Your task to perform on an android device: Go to eBay Image 0: 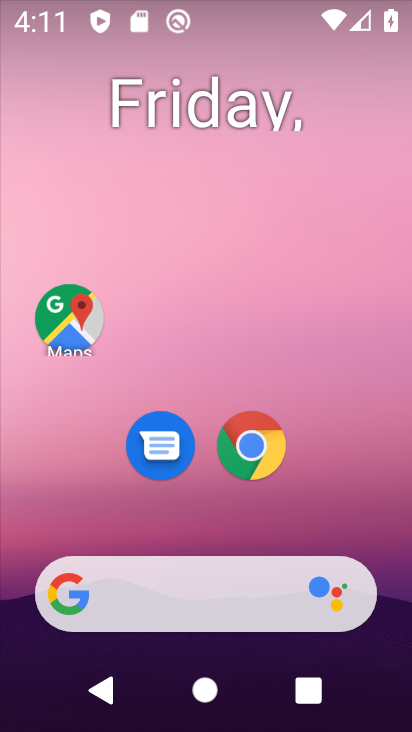
Step 0: click (254, 447)
Your task to perform on an android device: Go to eBay Image 1: 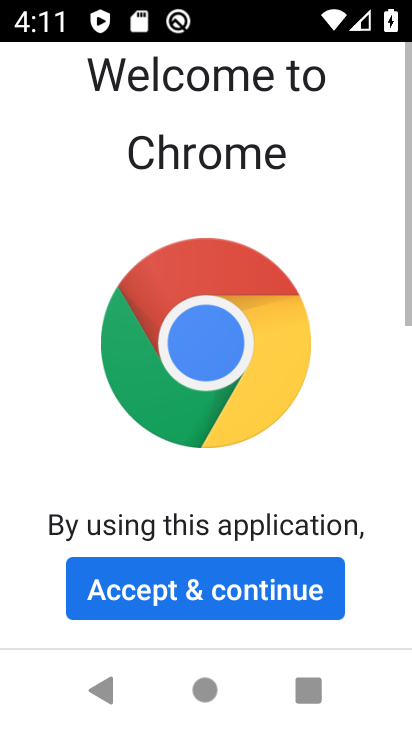
Step 1: click (198, 581)
Your task to perform on an android device: Go to eBay Image 2: 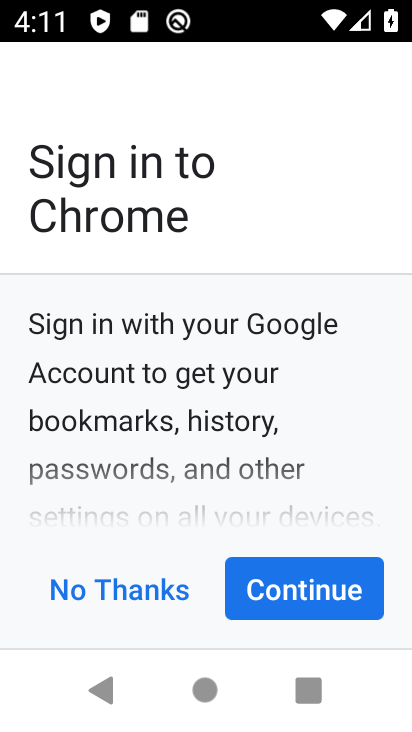
Step 2: click (256, 585)
Your task to perform on an android device: Go to eBay Image 3: 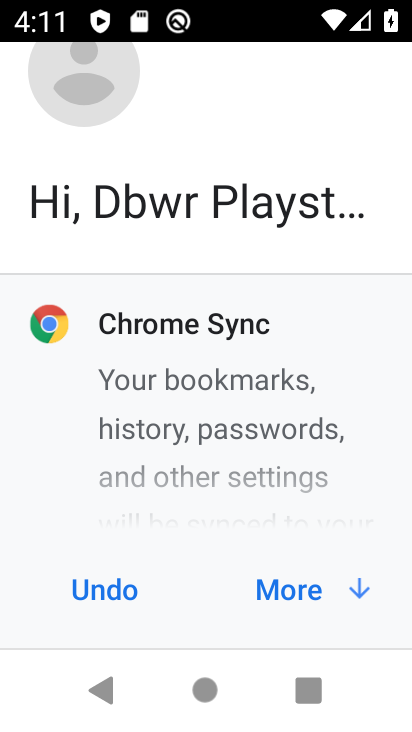
Step 3: click (256, 584)
Your task to perform on an android device: Go to eBay Image 4: 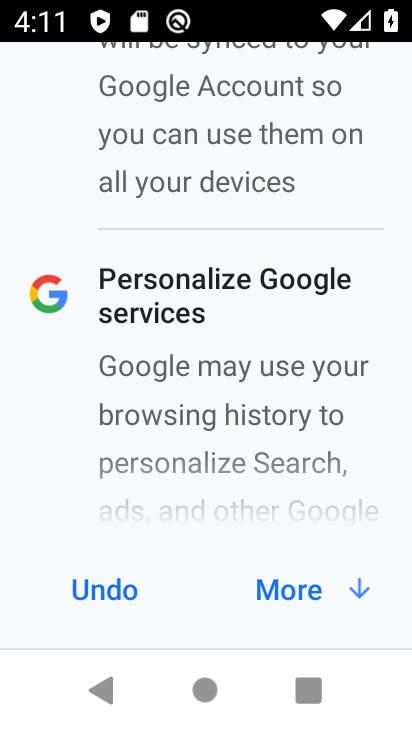
Step 4: click (256, 584)
Your task to perform on an android device: Go to eBay Image 5: 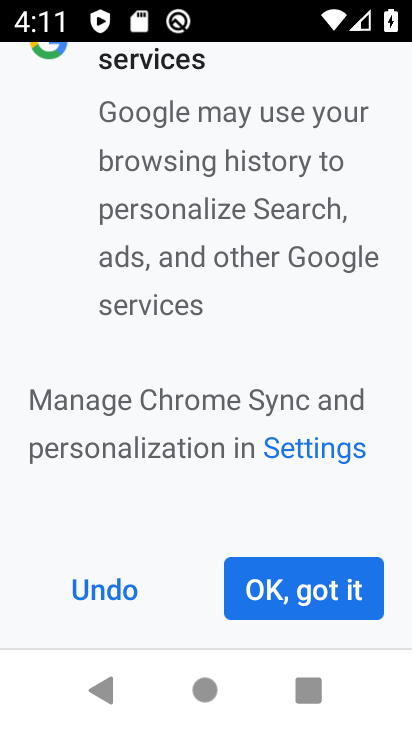
Step 5: click (256, 584)
Your task to perform on an android device: Go to eBay Image 6: 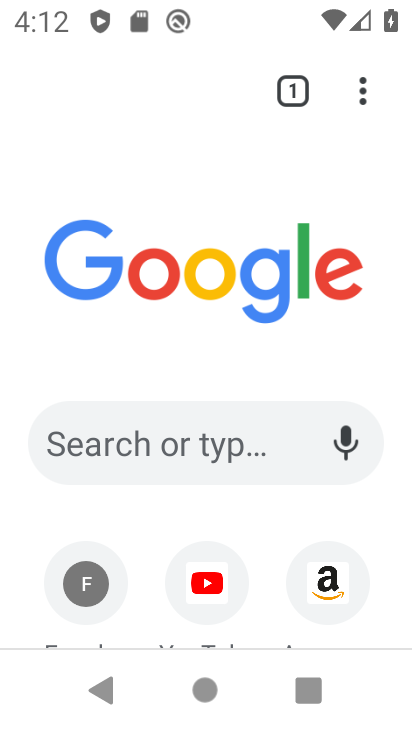
Step 6: click (215, 443)
Your task to perform on an android device: Go to eBay Image 7: 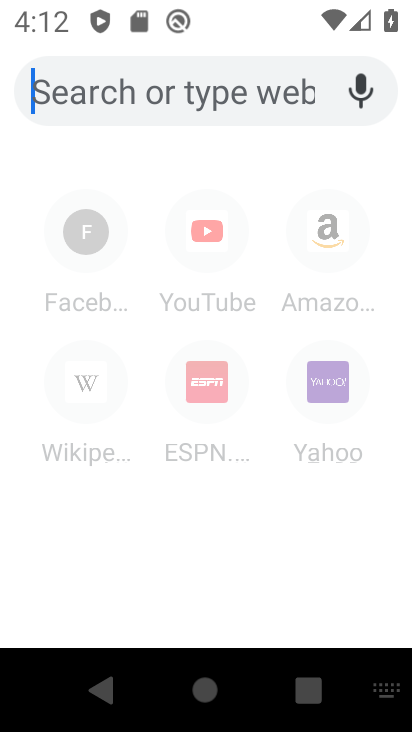
Step 7: type "ebay"
Your task to perform on an android device: Go to eBay Image 8: 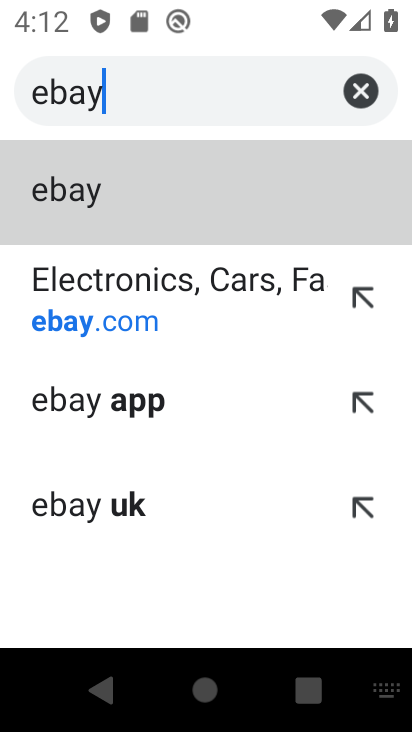
Step 8: click (96, 312)
Your task to perform on an android device: Go to eBay Image 9: 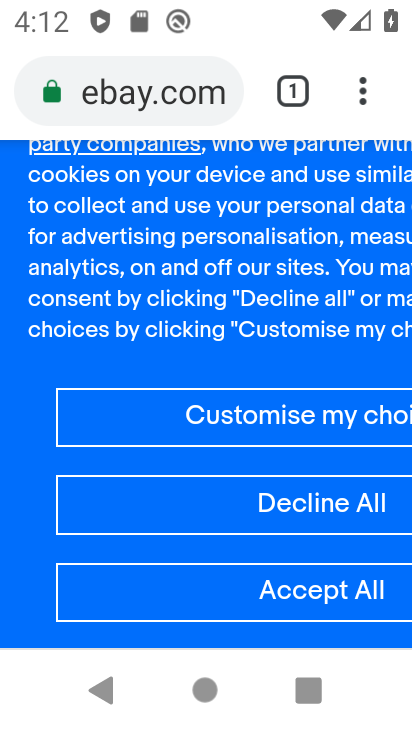
Step 9: task complete